Your task to perform on an android device: Go to ESPN.com Image 0: 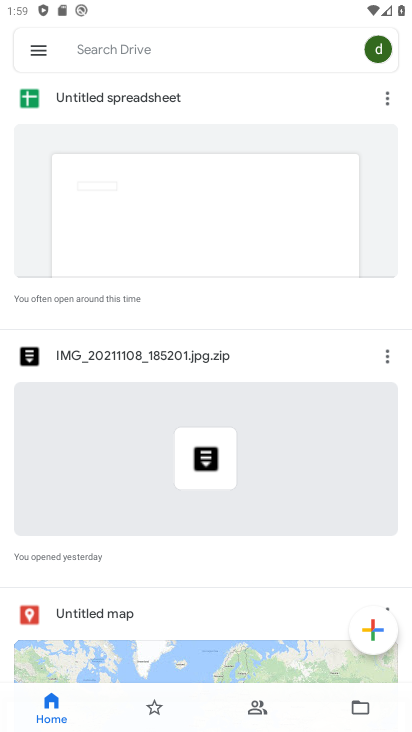
Step 0: press home button
Your task to perform on an android device: Go to ESPN.com Image 1: 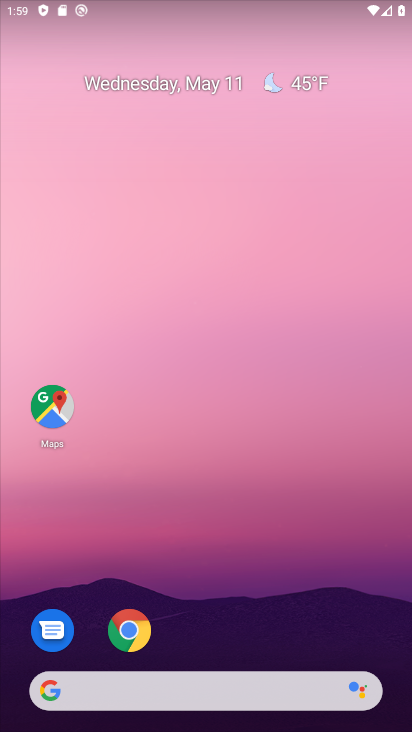
Step 1: click (125, 634)
Your task to perform on an android device: Go to ESPN.com Image 2: 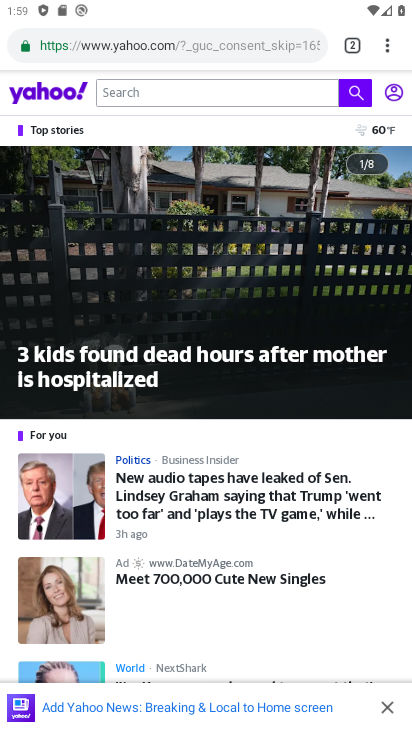
Step 2: click (385, 54)
Your task to perform on an android device: Go to ESPN.com Image 3: 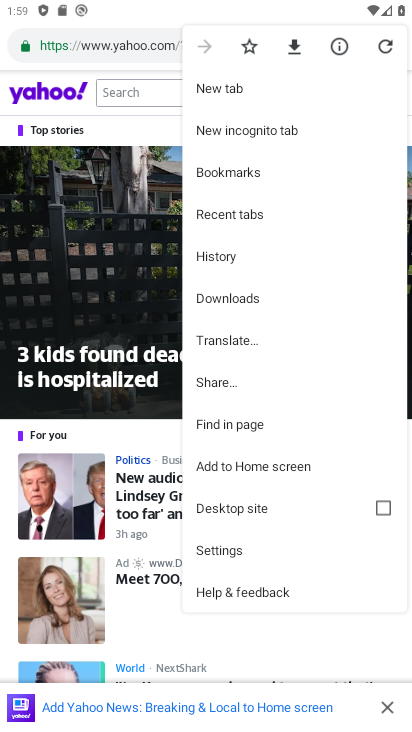
Step 3: click (218, 85)
Your task to perform on an android device: Go to ESPN.com Image 4: 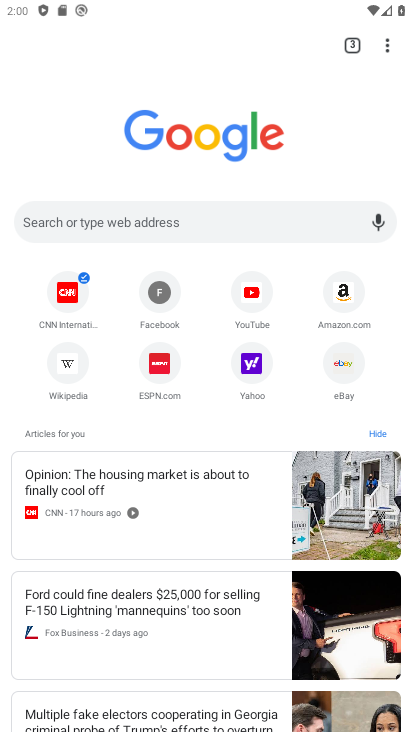
Step 4: click (159, 358)
Your task to perform on an android device: Go to ESPN.com Image 5: 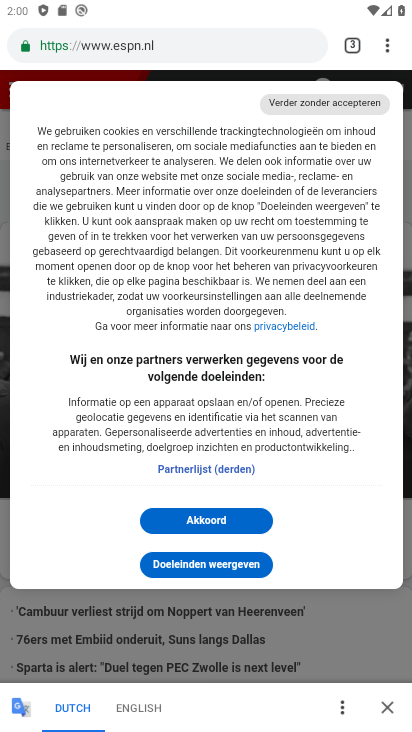
Step 5: click (196, 515)
Your task to perform on an android device: Go to ESPN.com Image 6: 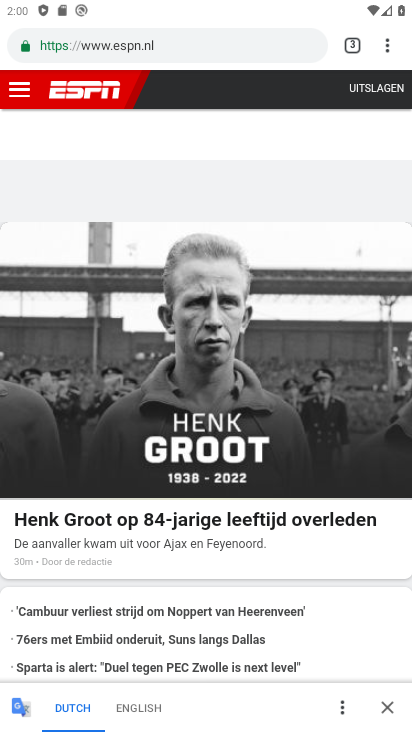
Step 6: task complete